Your task to perform on an android device: turn pop-ups on in chrome Image 0: 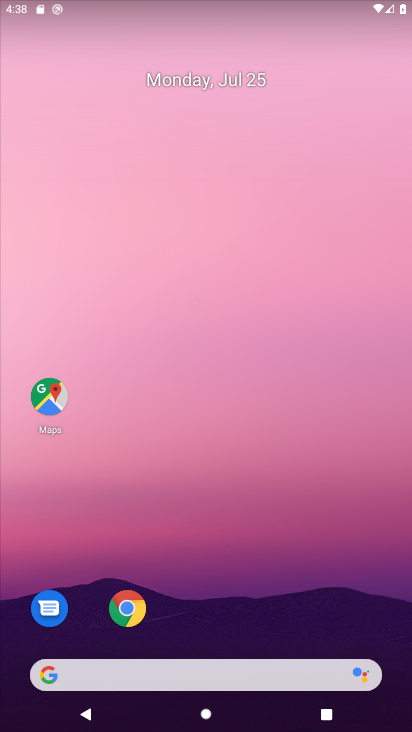
Step 0: click (126, 604)
Your task to perform on an android device: turn pop-ups on in chrome Image 1: 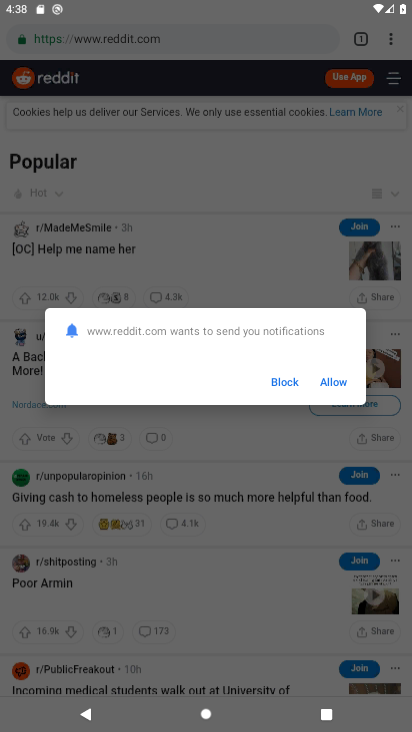
Step 1: click (283, 369)
Your task to perform on an android device: turn pop-ups on in chrome Image 2: 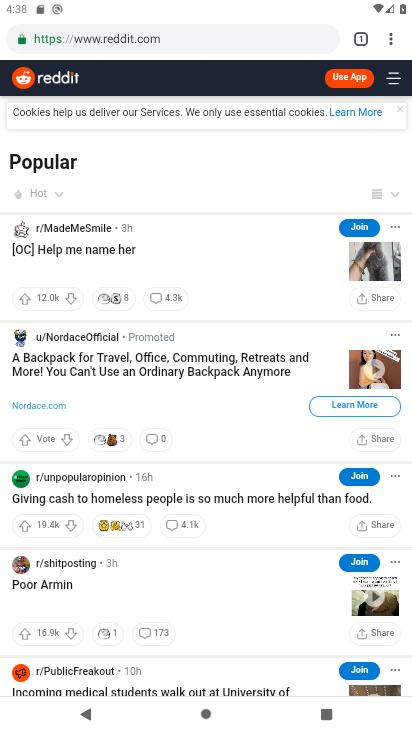
Step 2: click (390, 39)
Your task to perform on an android device: turn pop-ups on in chrome Image 3: 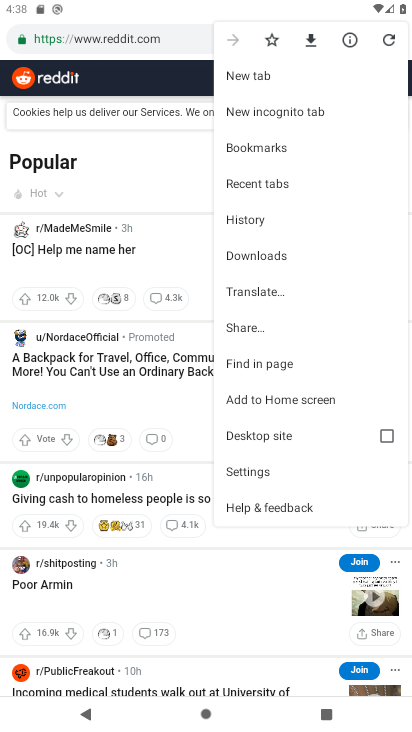
Step 3: click (261, 476)
Your task to perform on an android device: turn pop-ups on in chrome Image 4: 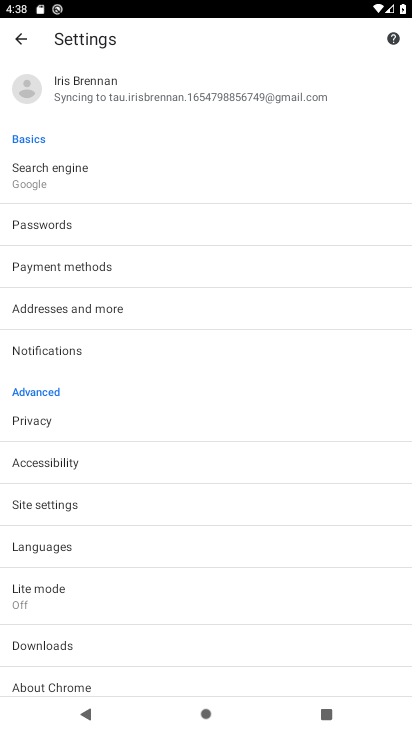
Step 4: click (60, 501)
Your task to perform on an android device: turn pop-ups on in chrome Image 5: 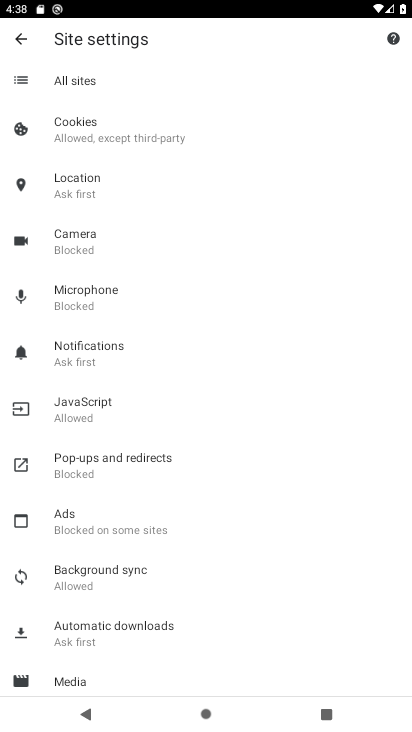
Step 5: click (150, 476)
Your task to perform on an android device: turn pop-ups on in chrome Image 6: 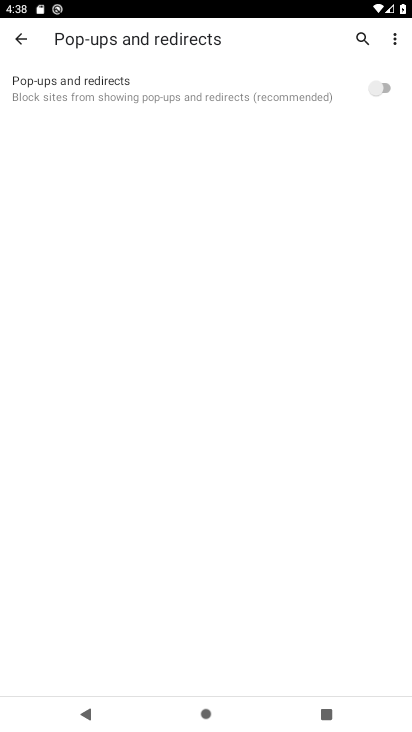
Step 6: click (348, 96)
Your task to perform on an android device: turn pop-ups on in chrome Image 7: 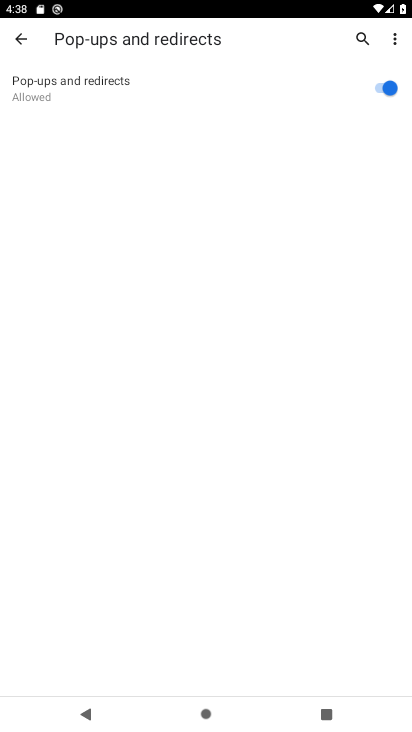
Step 7: task complete